Your task to perform on an android device: Go to ESPN.com Image 0: 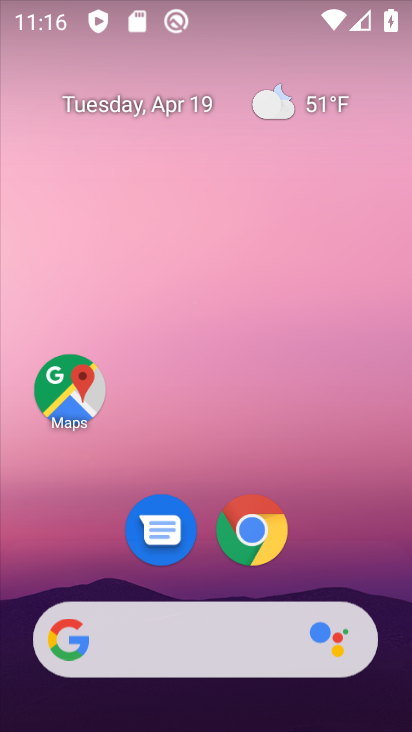
Step 0: click (263, 536)
Your task to perform on an android device: Go to ESPN.com Image 1: 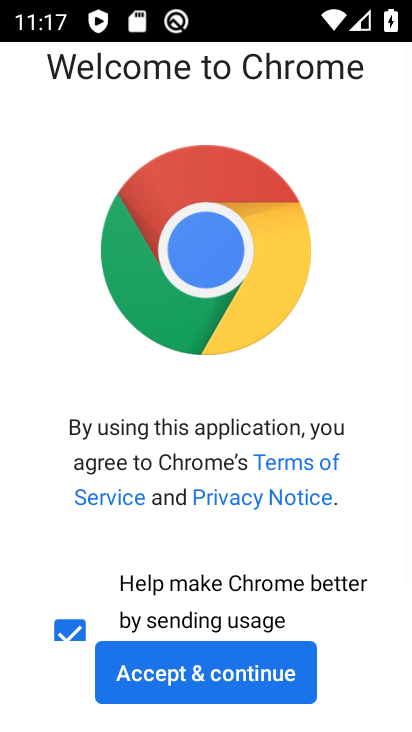
Step 1: click (258, 688)
Your task to perform on an android device: Go to ESPN.com Image 2: 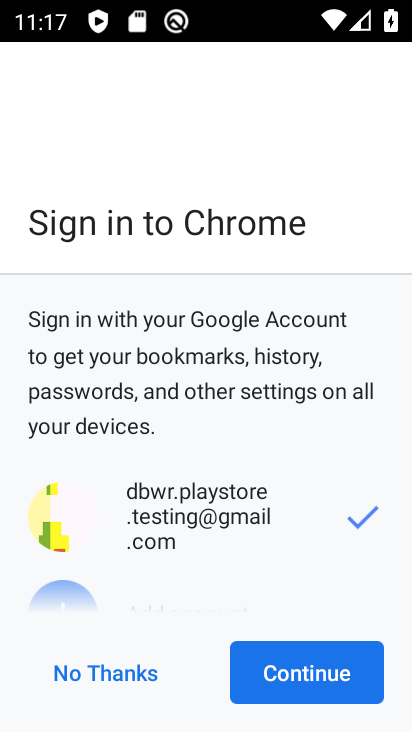
Step 2: click (300, 678)
Your task to perform on an android device: Go to ESPN.com Image 3: 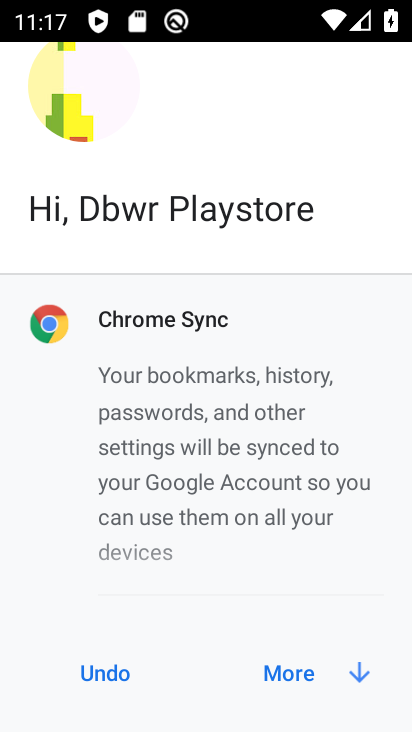
Step 3: click (296, 676)
Your task to perform on an android device: Go to ESPN.com Image 4: 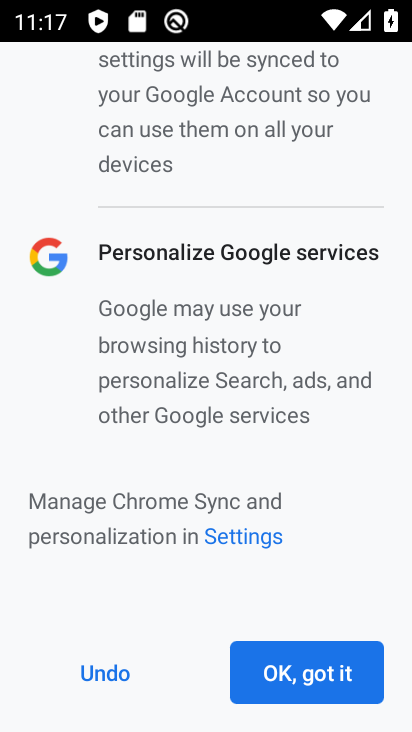
Step 4: click (294, 672)
Your task to perform on an android device: Go to ESPN.com Image 5: 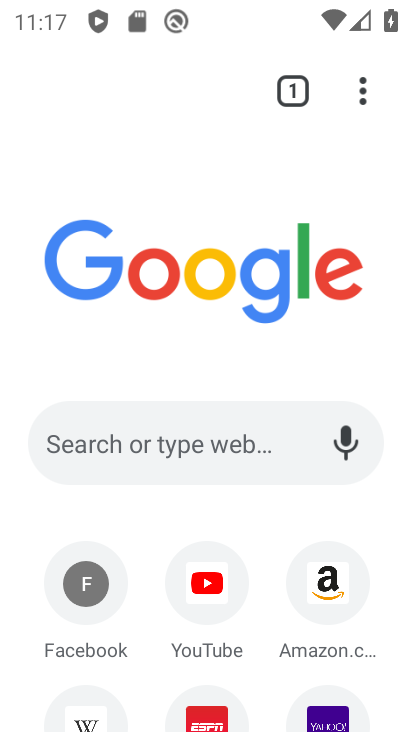
Step 5: click (224, 715)
Your task to perform on an android device: Go to ESPN.com Image 6: 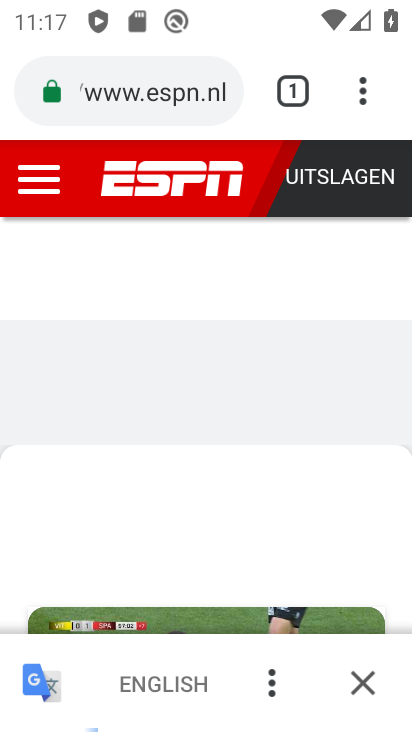
Step 6: click (198, 693)
Your task to perform on an android device: Go to ESPN.com Image 7: 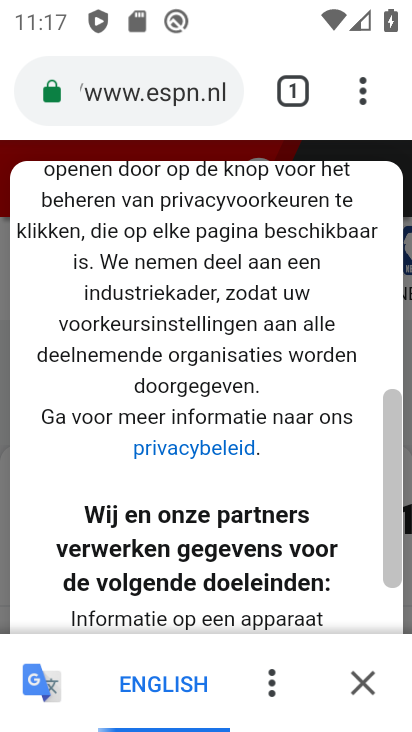
Step 7: click (382, 679)
Your task to perform on an android device: Go to ESPN.com Image 8: 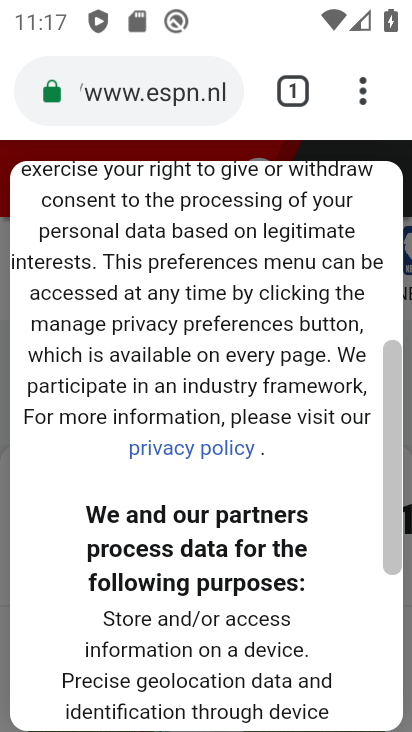
Step 8: drag from (178, 675) to (277, 218)
Your task to perform on an android device: Go to ESPN.com Image 9: 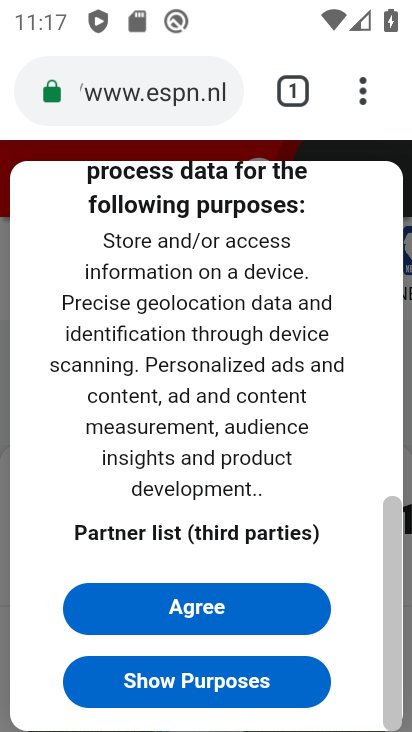
Step 9: click (212, 597)
Your task to perform on an android device: Go to ESPN.com Image 10: 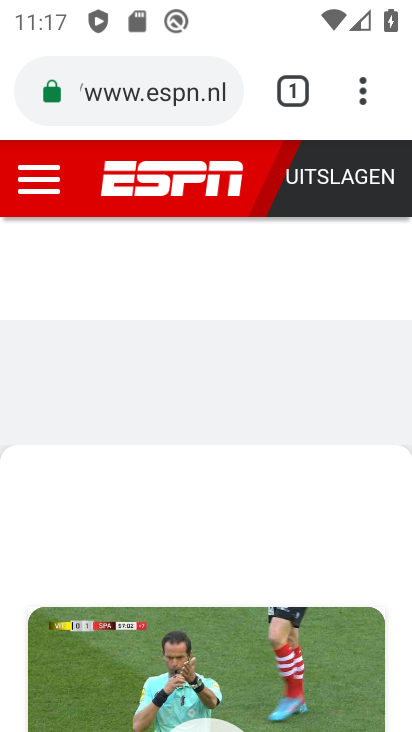
Step 10: task complete